Your task to perform on an android device: turn vacation reply on in the gmail app Image 0: 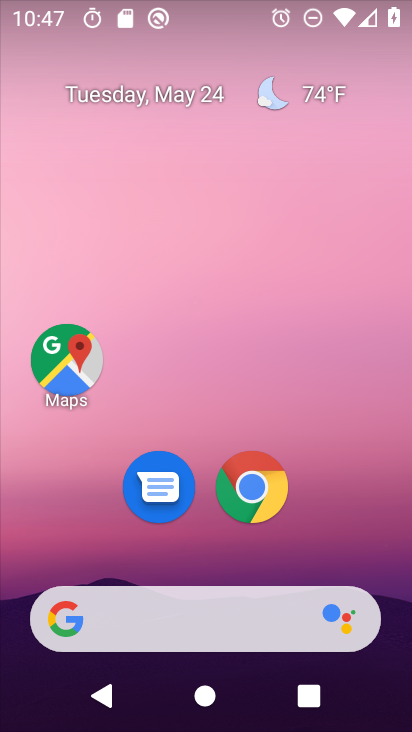
Step 0: drag from (356, 585) to (395, 12)
Your task to perform on an android device: turn vacation reply on in the gmail app Image 1: 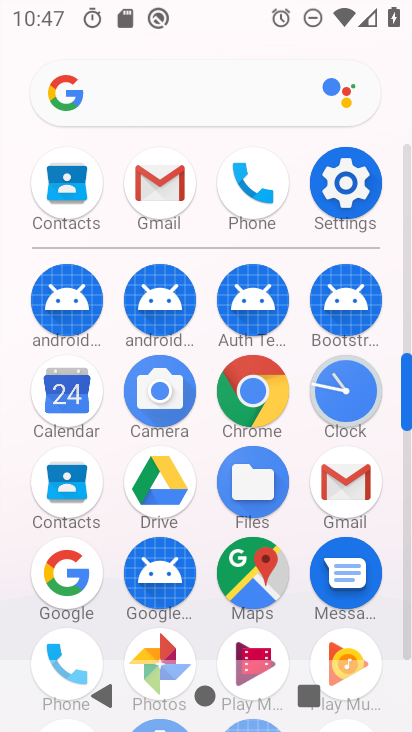
Step 1: click (159, 192)
Your task to perform on an android device: turn vacation reply on in the gmail app Image 2: 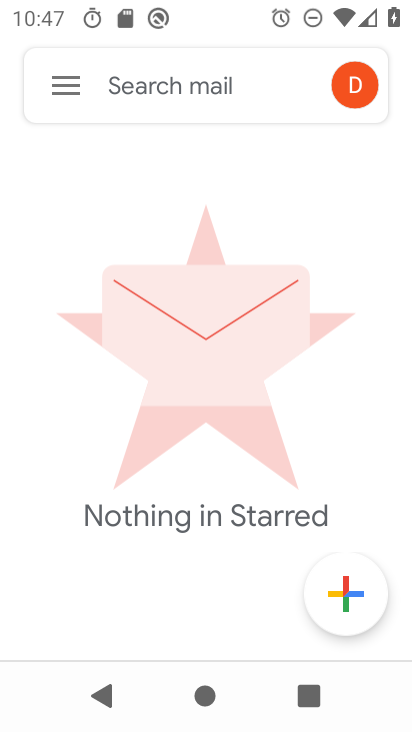
Step 2: click (64, 91)
Your task to perform on an android device: turn vacation reply on in the gmail app Image 3: 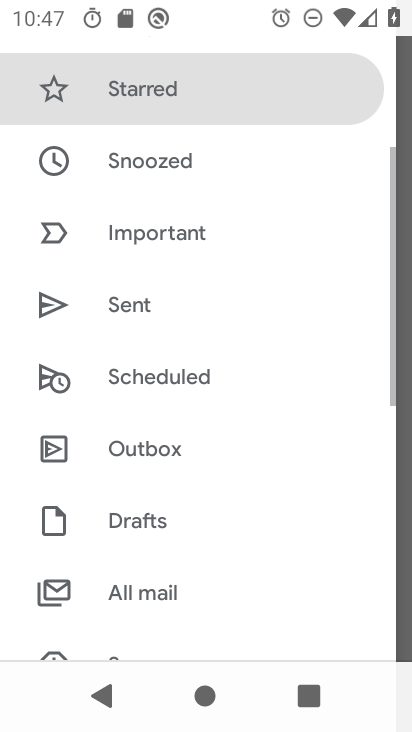
Step 3: drag from (217, 541) to (184, 106)
Your task to perform on an android device: turn vacation reply on in the gmail app Image 4: 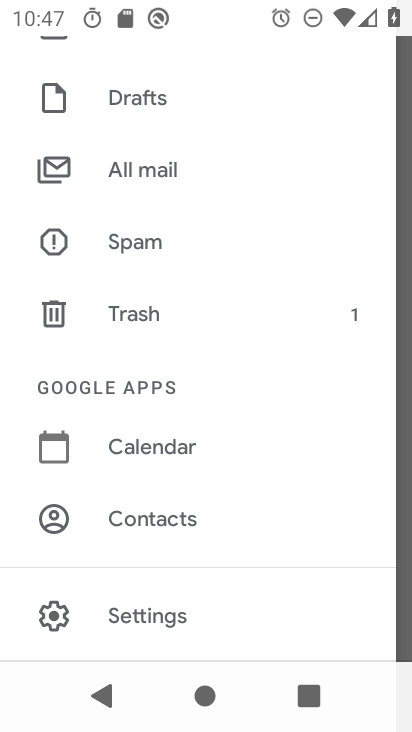
Step 4: click (147, 626)
Your task to perform on an android device: turn vacation reply on in the gmail app Image 5: 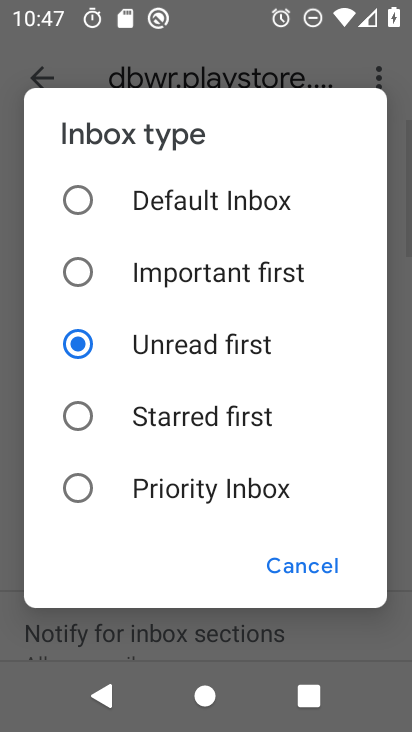
Step 5: click (289, 573)
Your task to perform on an android device: turn vacation reply on in the gmail app Image 6: 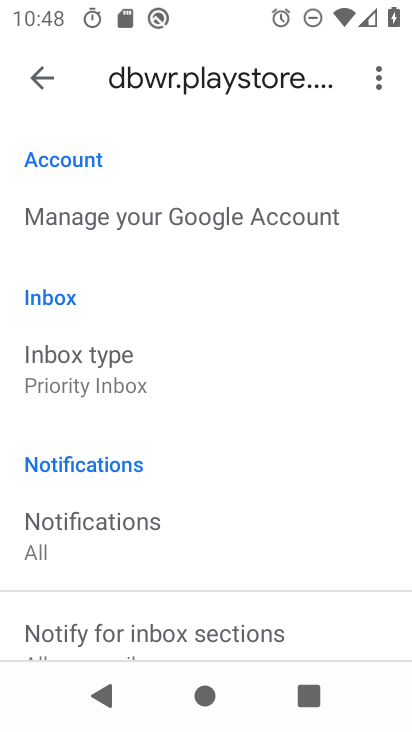
Step 6: drag from (185, 614) to (192, 31)
Your task to perform on an android device: turn vacation reply on in the gmail app Image 7: 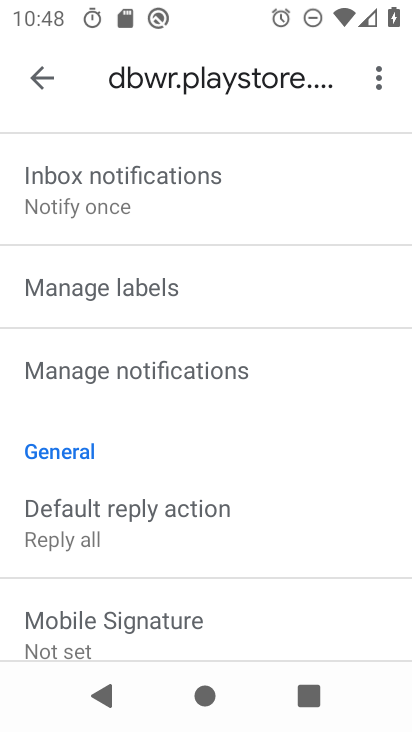
Step 7: drag from (136, 484) to (130, 102)
Your task to perform on an android device: turn vacation reply on in the gmail app Image 8: 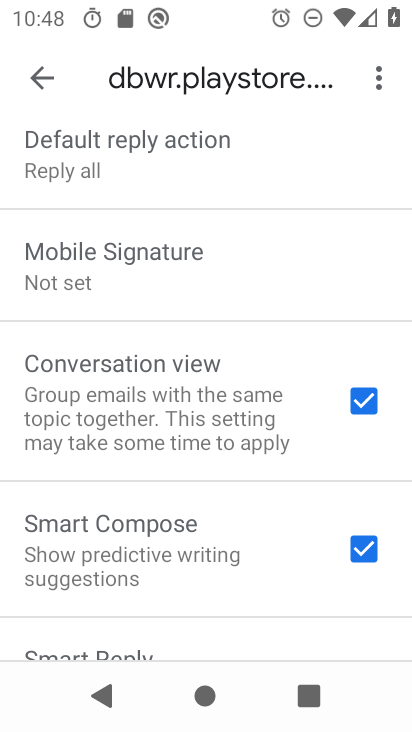
Step 8: drag from (103, 507) to (99, 83)
Your task to perform on an android device: turn vacation reply on in the gmail app Image 9: 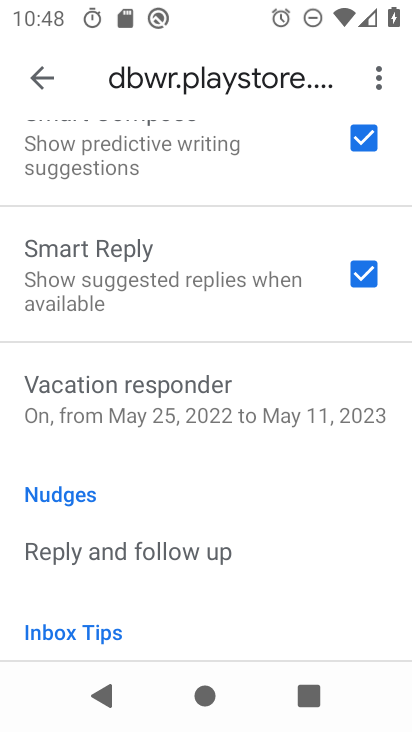
Step 9: click (78, 391)
Your task to perform on an android device: turn vacation reply on in the gmail app Image 10: 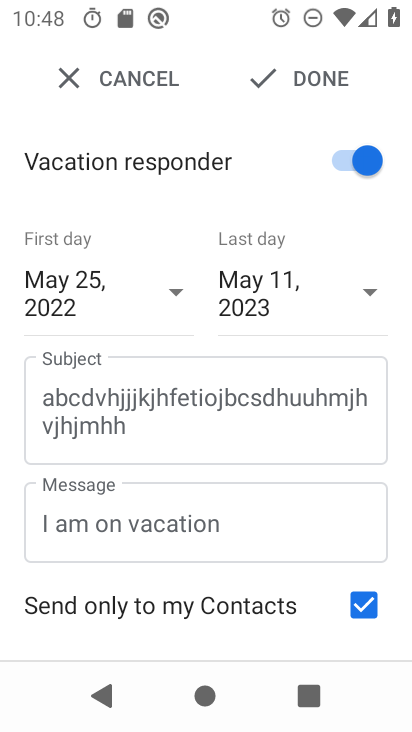
Step 10: click (295, 81)
Your task to perform on an android device: turn vacation reply on in the gmail app Image 11: 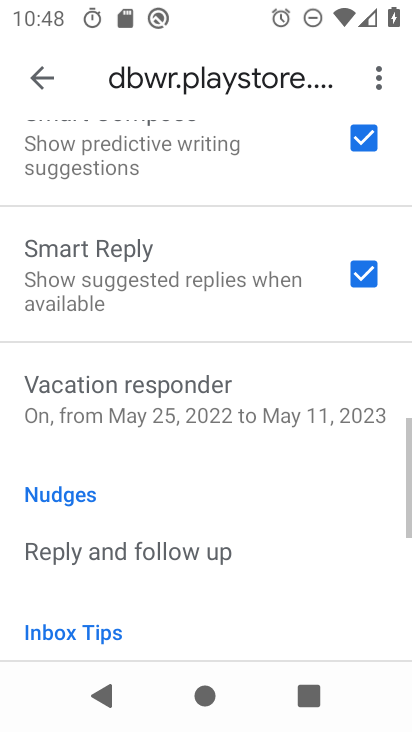
Step 11: task complete